Your task to perform on an android device: clear all cookies in the chrome app Image 0: 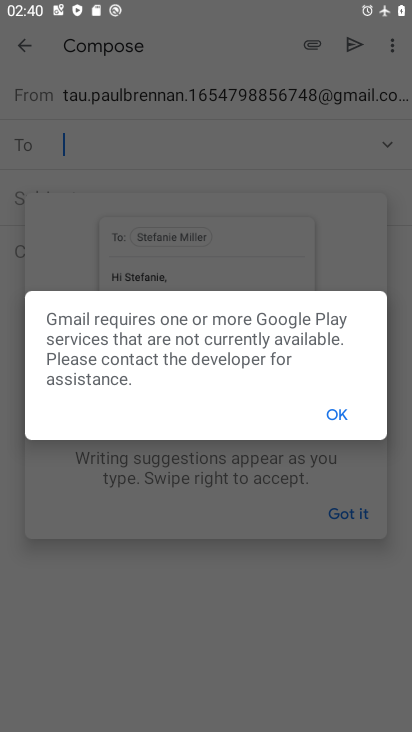
Step 0: press home button
Your task to perform on an android device: clear all cookies in the chrome app Image 1: 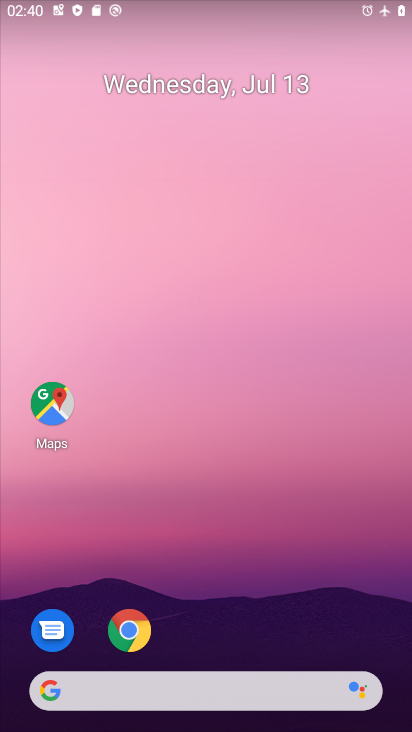
Step 1: click (134, 629)
Your task to perform on an android device: clear all cookies in the chrome app Image 2: 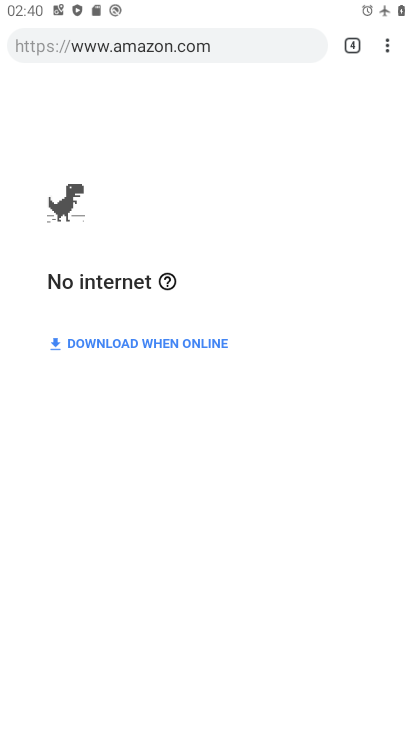
Step 2: click (385, 45)
Your task to perform on an android device: clear all cookies in the chrome app Image 3: 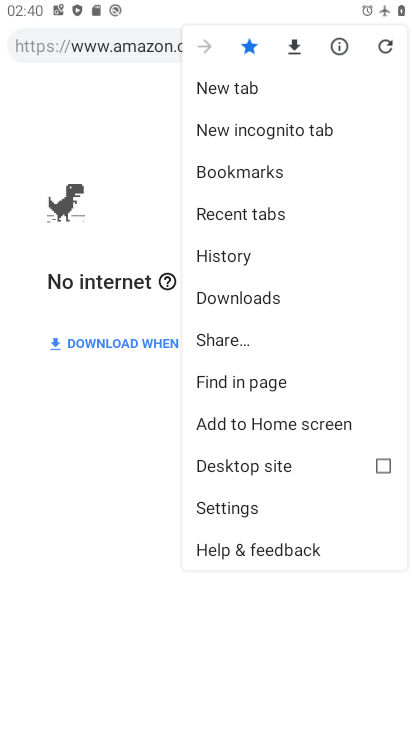
Step 3: click (260, 256)
Your task to perform on an android device: clear all cookies in the chrome app Image 4: 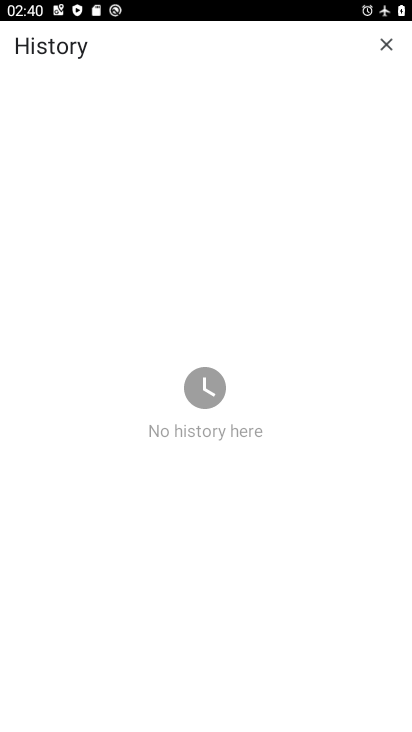
Step 4: task complete